Your task to perform on an android device: clear history in the chrome app Image 0: 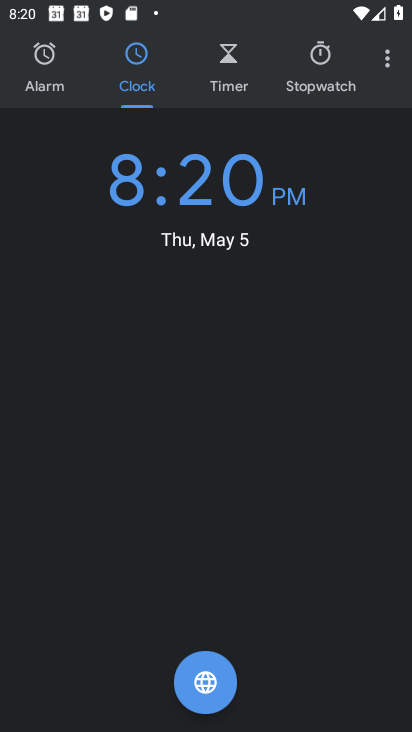
Step 0: press home button
Your task to perform on an android device: clear history in the chrome app Image 1: 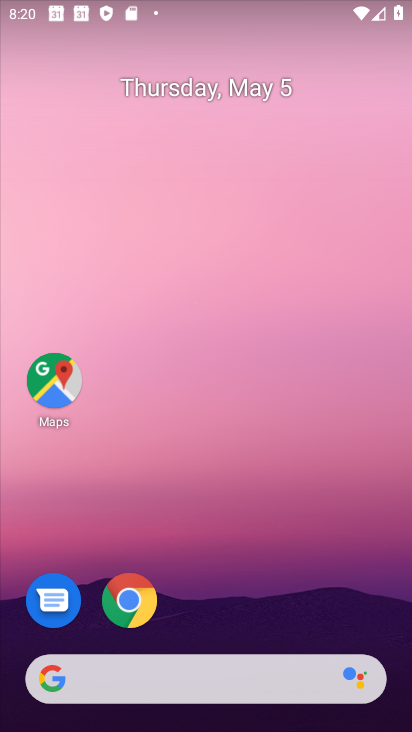
Step 1: click (127, 597)
Your task to perform on an android device: clear history in the chrome app Image 2: 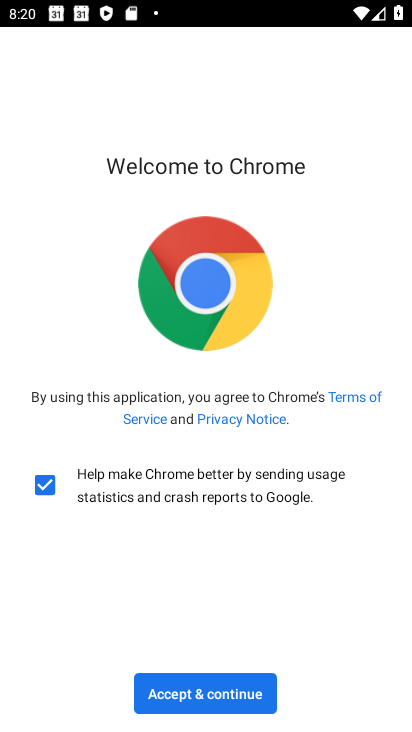
Step 2: click (203, 694)
Your task to perform on an android device: clear history in the chrome app Image 3: 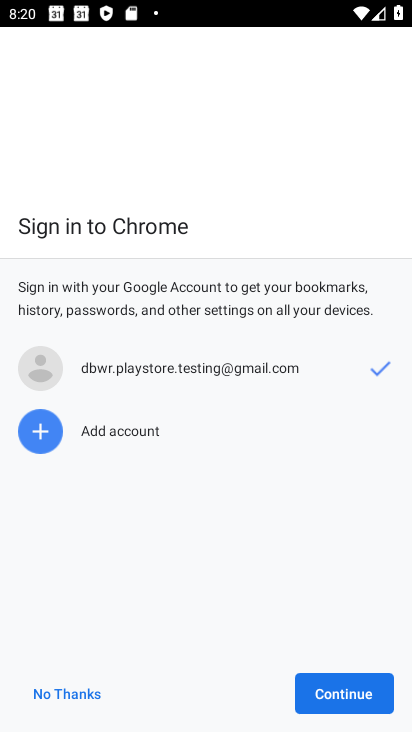
Step 3: click (354, 686)
Your task to perform on an android device: clear history in the chrome app Image 4: 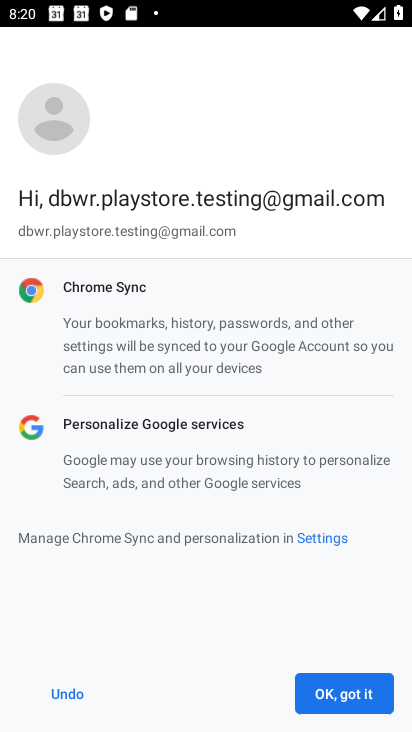
Step 4: click (354, 686)
Your task to perform on an android device: clear history in the chrome app Image 5: 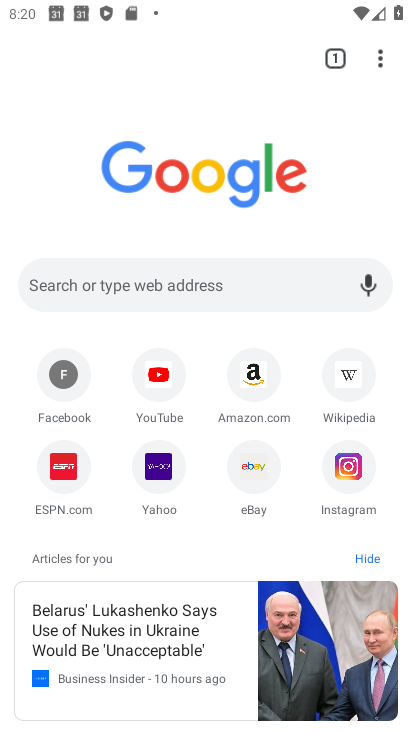
Step 5: click (379, 62)
Your task to perform on an android device: clear history in the chrome app Image 6: 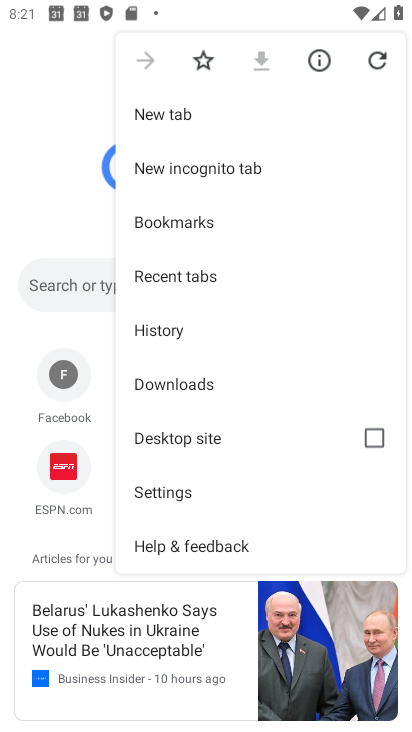
Step 6: click (160, 328)
Your task to perform on an android device: clear history in the chrome app Image 7: 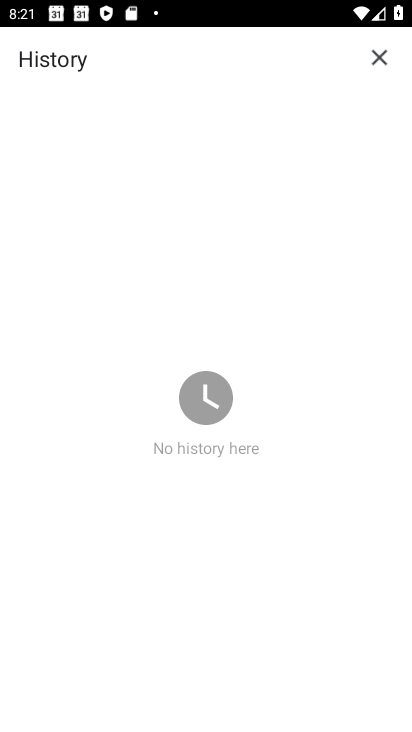
Step 7: task complete